Your task to perform on an android device: turn on data saver in the chrome app Image 0: 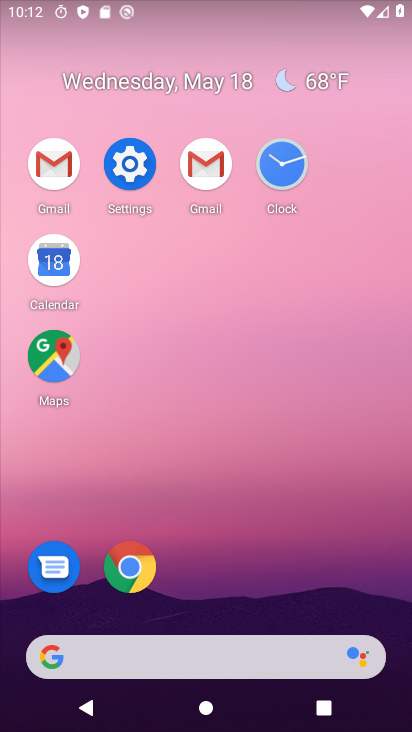
Step 0: click (132, 583)
Your task to perform on an android device: turn on data saver in the chrome app Image 1: 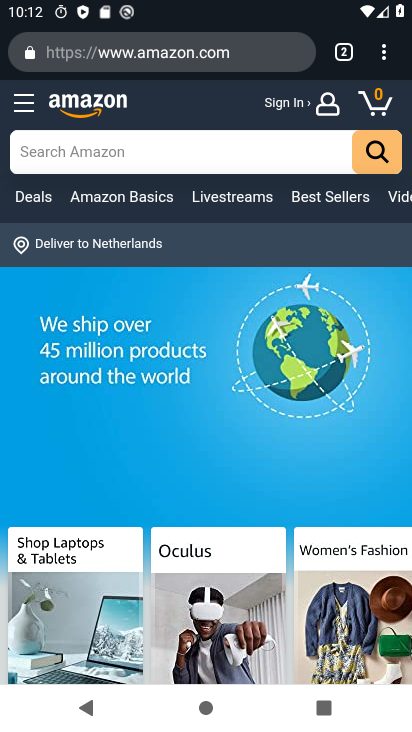
Step 1: click (387, 64)
Your task to perform on an android device: turn on data saver in the chrome app Image 2: 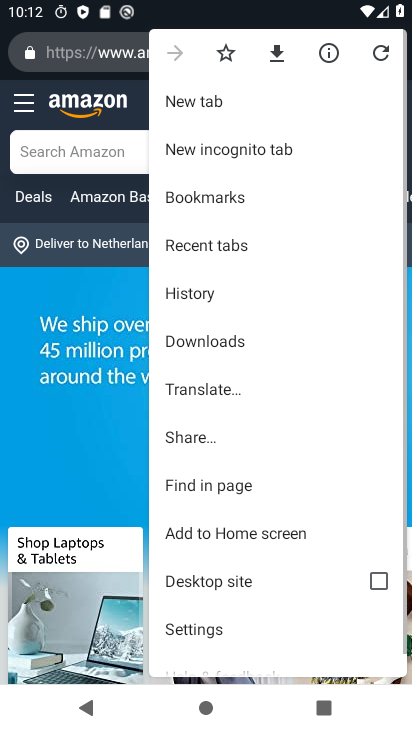
Step 2: drag from (268, 543) to (305, 92)
Your task to perform on an android device: turn on data saver in the chrome app Image 3: 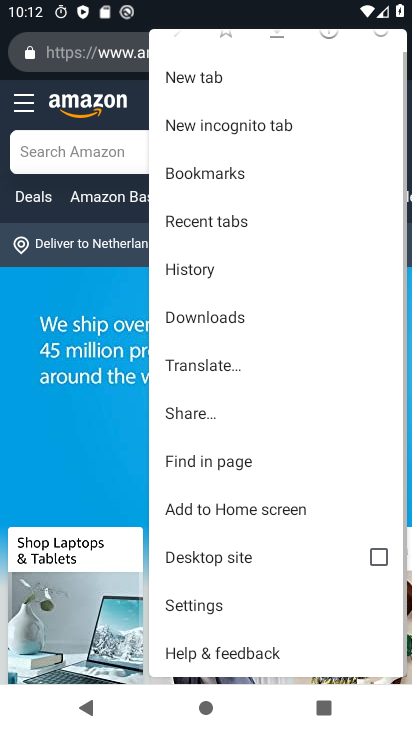
Step 3: click (225, 604)
Your task to perform on an android device: turn on data saver in the chrome app Image 4: 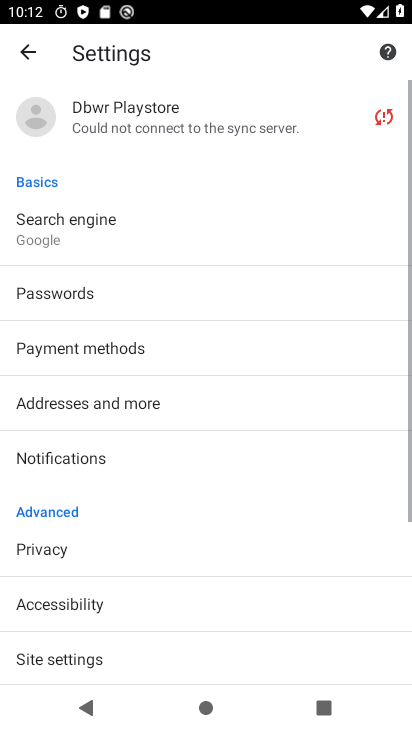
Step 4: drag from (218, 587) to (244, 156)
Your task to perform on an android device: turn on data saver in the chrome app Image 5: 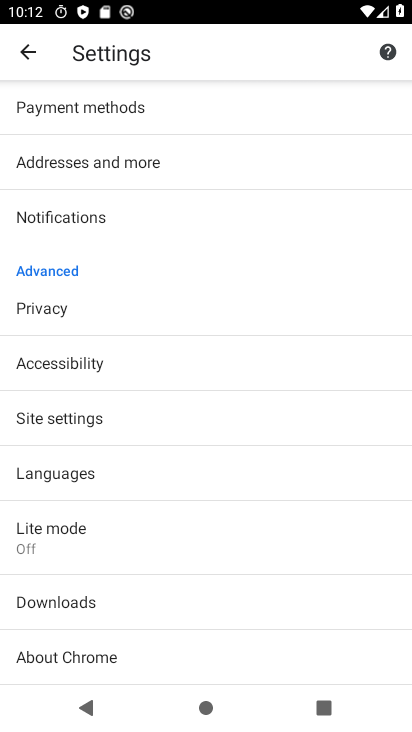
Step 5: click (171, 534)
Your task to perform on an android device: turn on data saver in the chrome app Image 6: 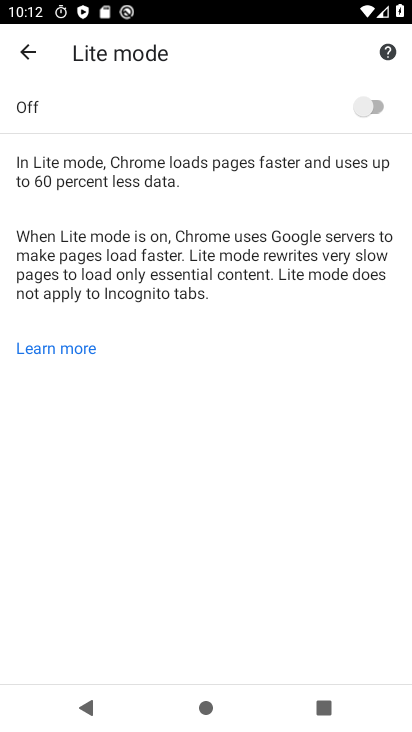
Step 6: click (358, 118)
Your task to perform on an android device: turn on data saver in the chrome app Image 7: 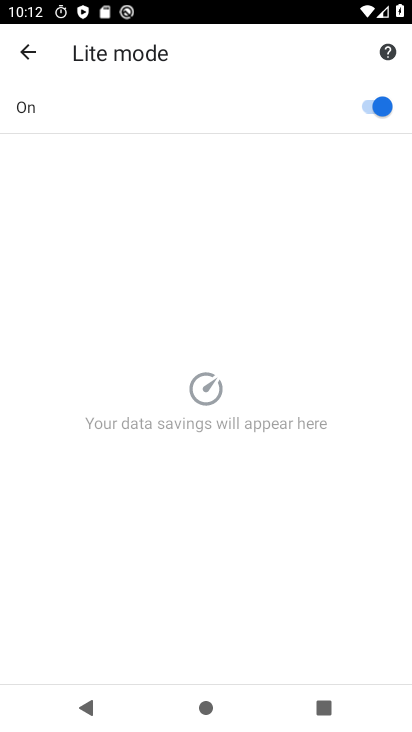
Step 7: task complete